Your task to perform on an android device: Open accessibility settings Image 0: 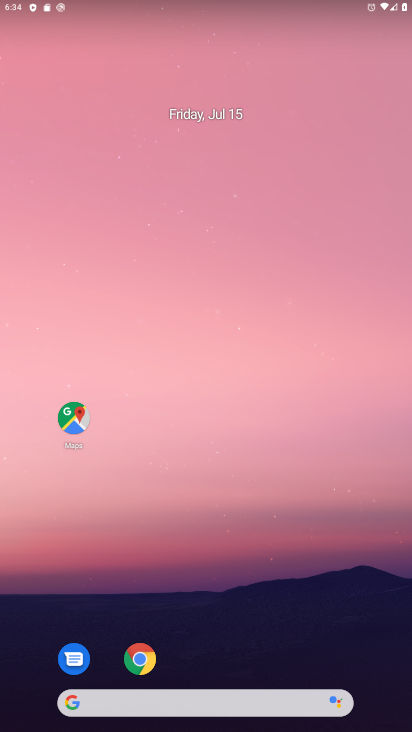
Step 0: drag from (379, 667) to (315, 95)
Your task to perform on an android device: Open accessibility settings Image 1: 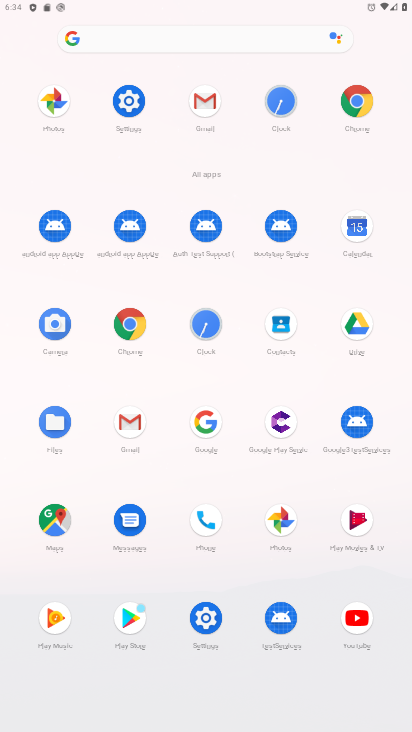
Step 1: click (208, 620)
Your task to perform on an android device: Open accessibility settings Image 2: 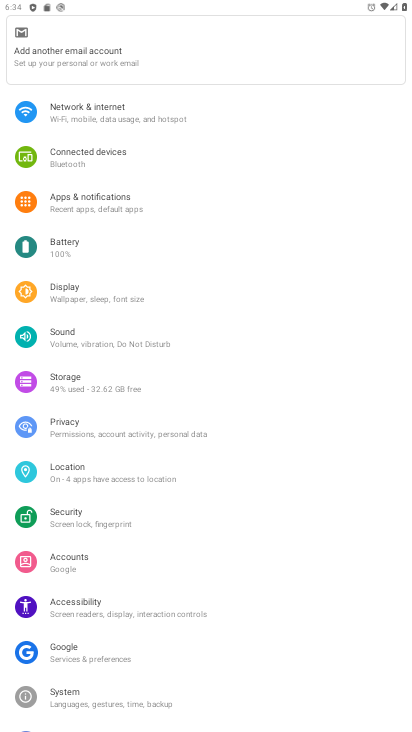
Step 2: click (74, 601)
Your task to perform on an android device: Open accessibility settings Image 3: 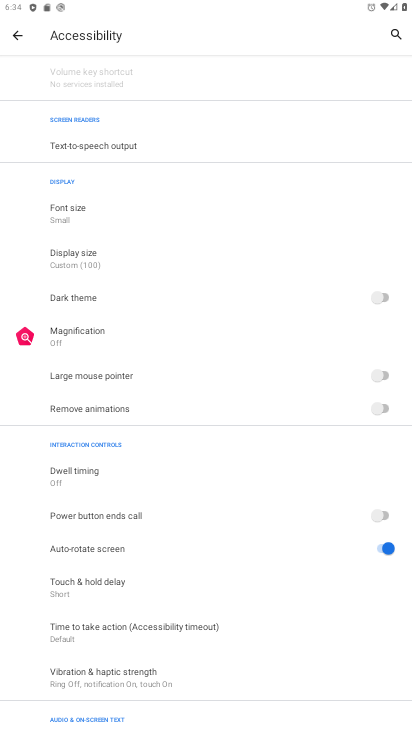
Step 3: task complete